Your task to perform on an android device: What's the weather today? Image 0: 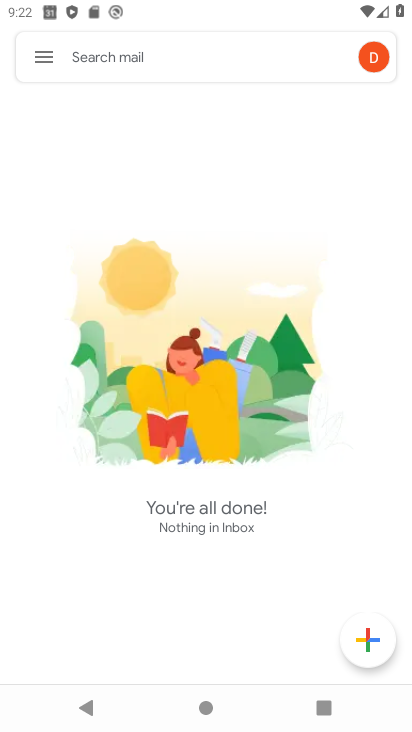
Step 0: press home button
Your task to perform on an android device: What's the weather today? Image 1: 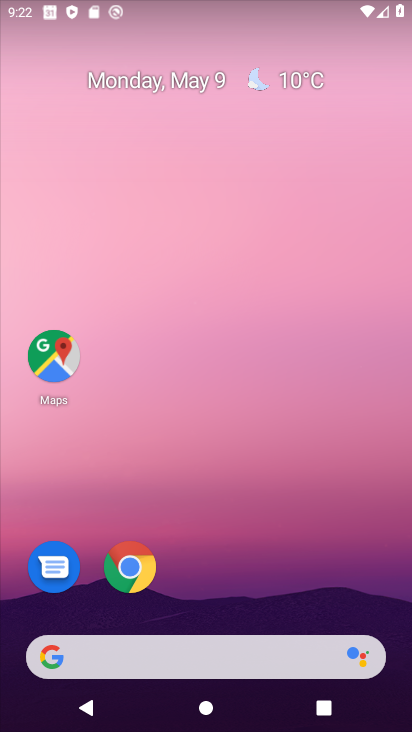
Step 1: click (292, 82)
Your task to perform on an android device: What's the weather today? Image 2: 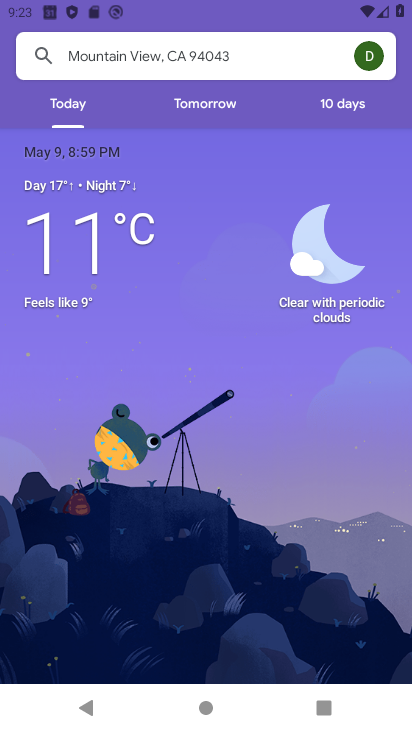
Step 2: task complete